Your task to perform on an android device: toggle notifications settings in the gmail app Image 0: 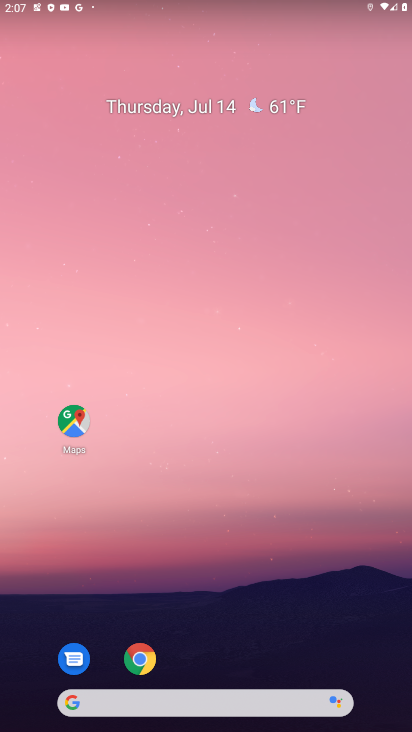
Step 0: drag from (209, 693) to (159, 119)
Your task to perform on an android device: toggle notifications settings in the gmail app Image 1: 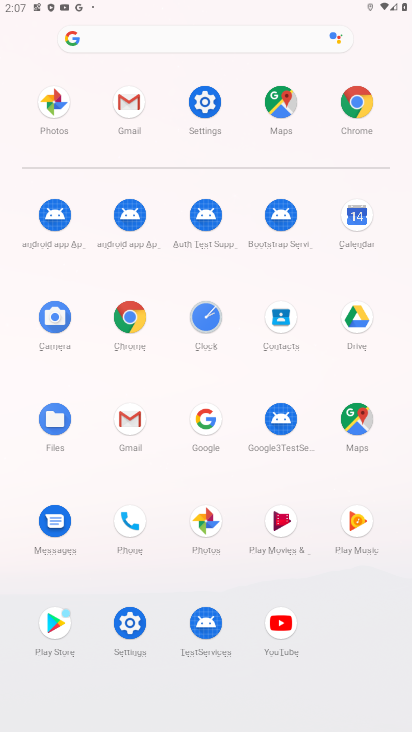
Step 1: click (124, 411)
Your task to perform on an android device: toggle notifications settings in the gmail app Image 2: 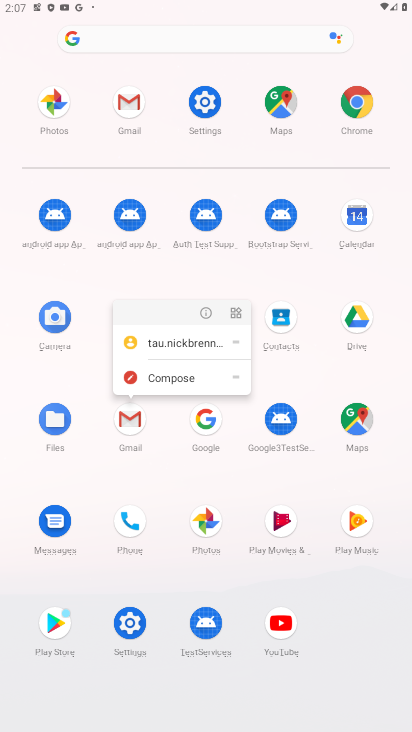
Step 2: click (125, 424)
Your task to perform on an android device: toggle notifications settings in the gmail app Image 3: 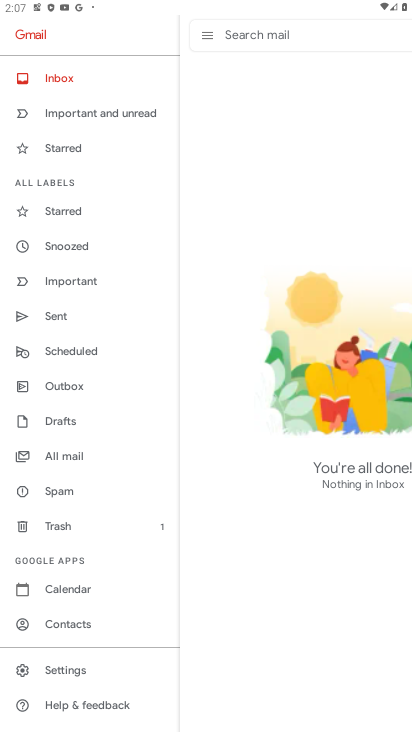
Step 3: click (79, 663)
Your task to perform on an android device: toggle notifications settings in the gmail app Image 4: 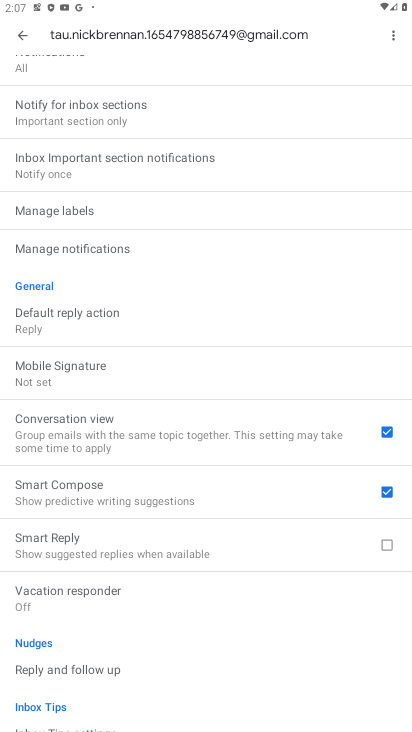
Step 4: click (82, 255)
Your task to perform on an android device: toggle notifications settings in the gmail app Image 5: 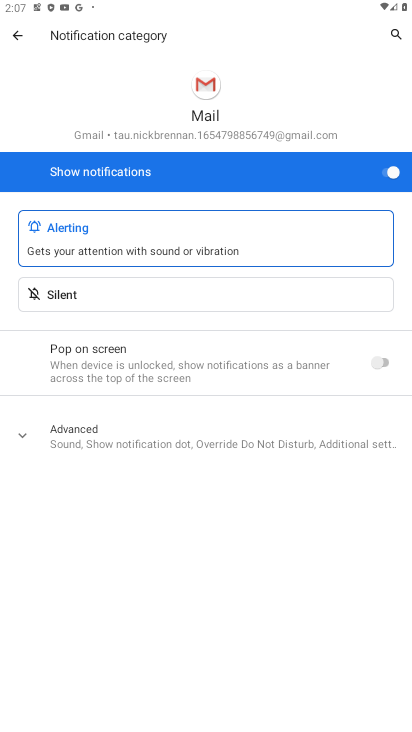
Step 5: click (388, 176)
Your task to perform on an android device: toggle notifications settings in the gmail app Image 6: 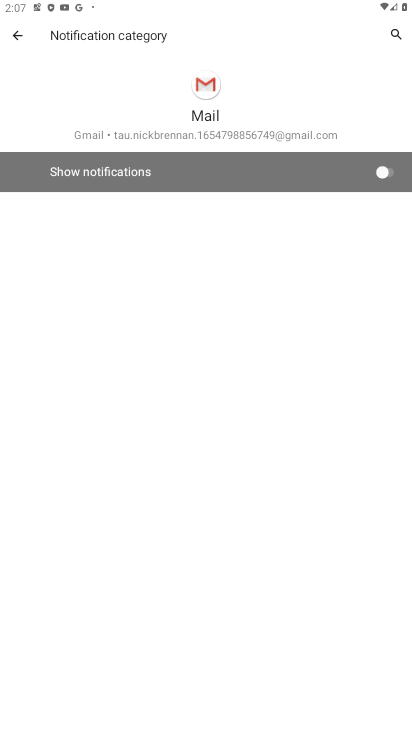
Step 6: task complete